Your task to perform on an android device: Do I have any events today? Image 0: 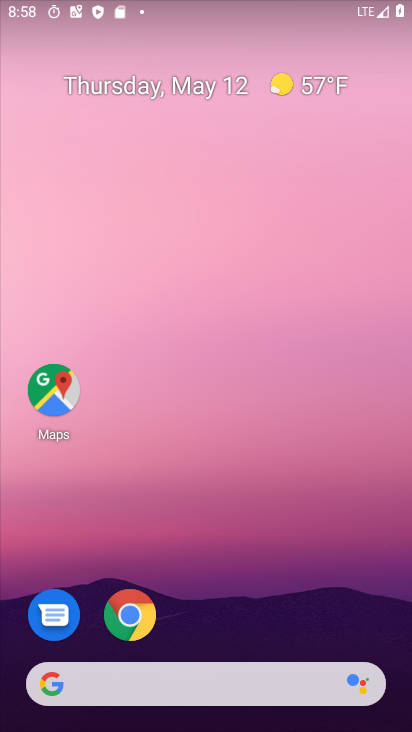
Step 0: drag from (249, 571) to (239, 59)
Your task to perform on an android device: Do I have any events today? Image 1: 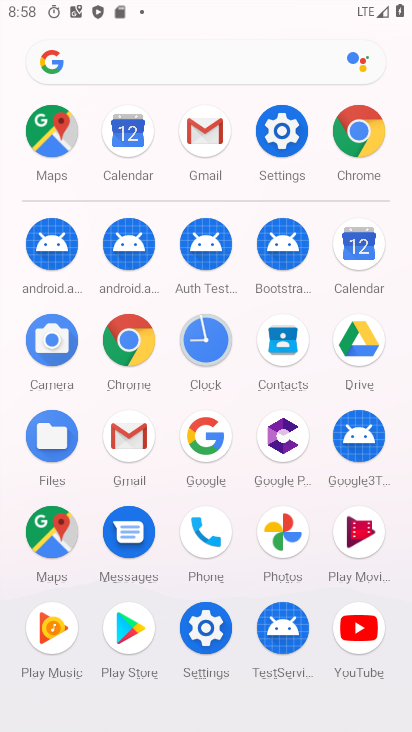
Step 1: drag from (8, 604) to (12, 306)
Your task to perform on an android device: Do I have any events today? Image 2: 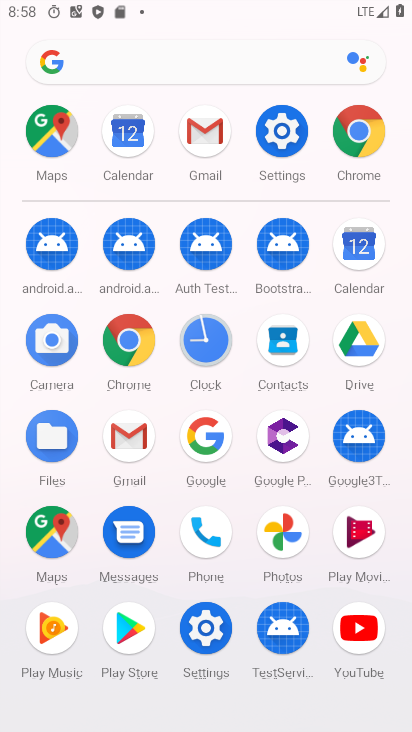
Step 2: drag from (3, 588) to (1, 340)
Your task to perform on an android device: Do I have any events today? Image 3: 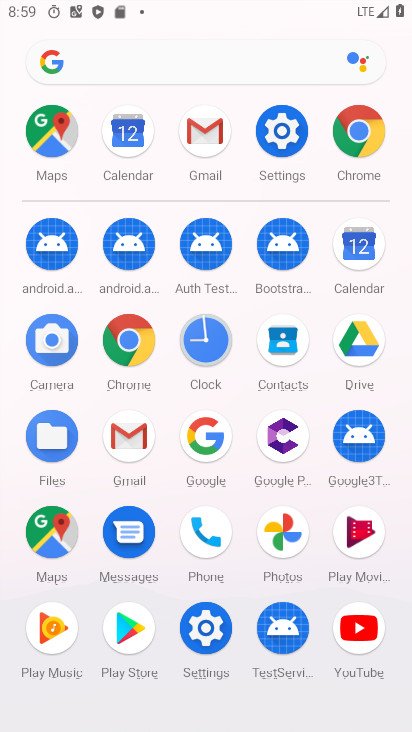
Step 3: click (357, 244)
Your task to perform on an android device: Do I have any events today? Image 4: 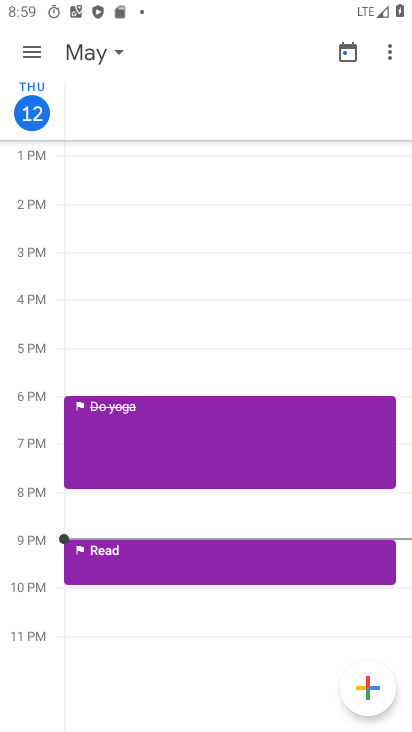
Step 4: task complete